Your task to perform on an android device: Set the phone to "Do not disturb". Image 0: 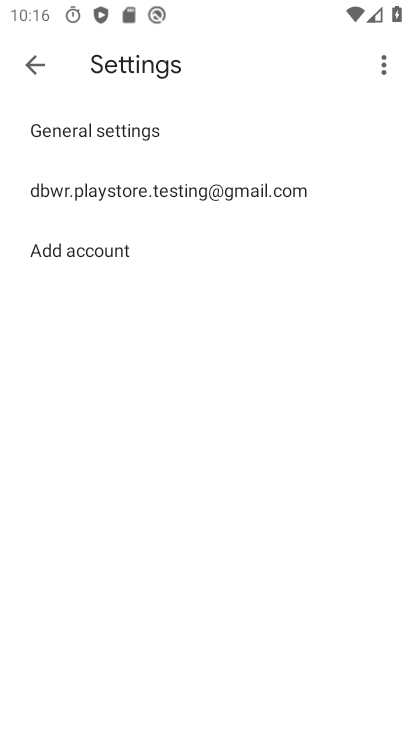
Step 0: press home button
Your task to perform on an android device: Set the phone to "Do not disturb". Image 1: 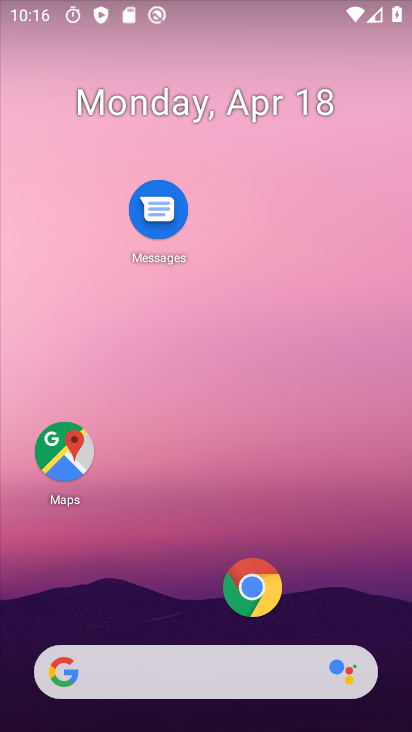
Step 1: drag from (175, 582) to (321, 33)
Your task to perform on an android device: Set the phone to "Do not disturb". Image 2: 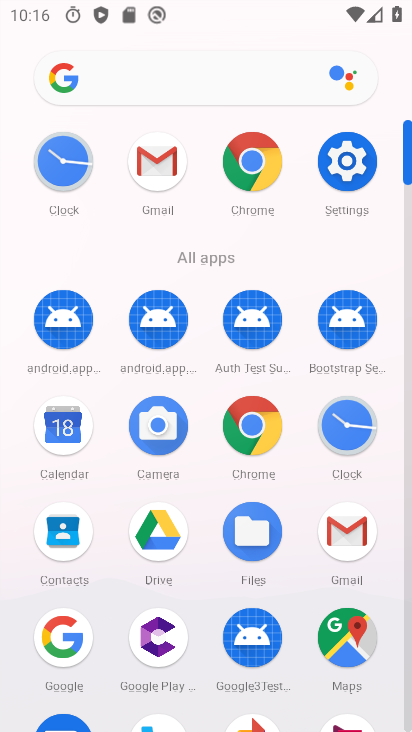
Step 2: click (344, 184)
Your task to perform on an android device: Set the phone to "Do not disturb". Image 3: 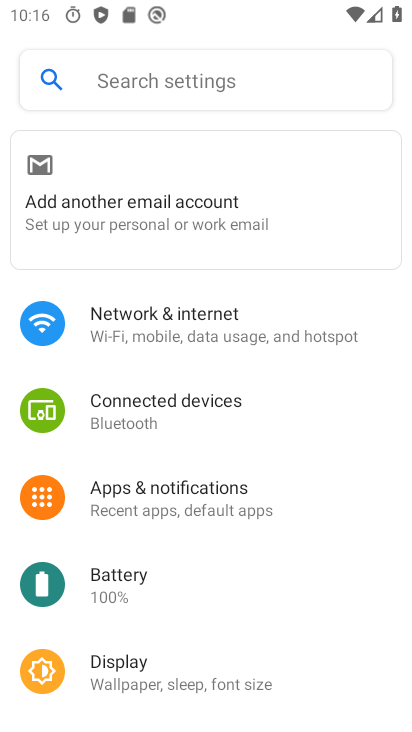
Step 3: drag from (146, 628) to (269, 153)
Your task to perform on an android device: Set the phone to "Do not disturb". Image 4: 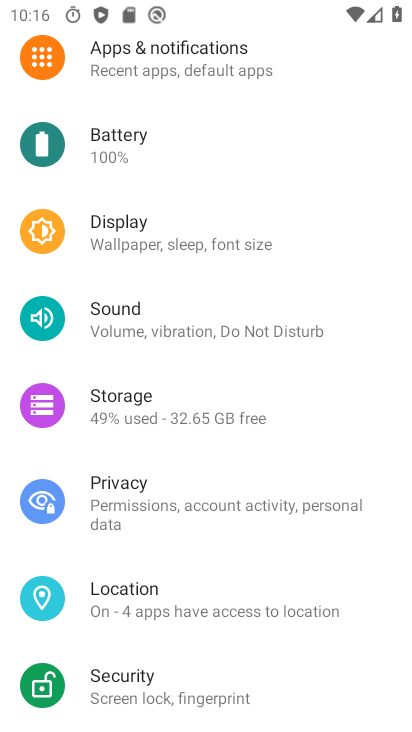
Step 4: click (163, 335)
Your task to perform on an android device: Set the phone to "Do not disturb". Image 5: 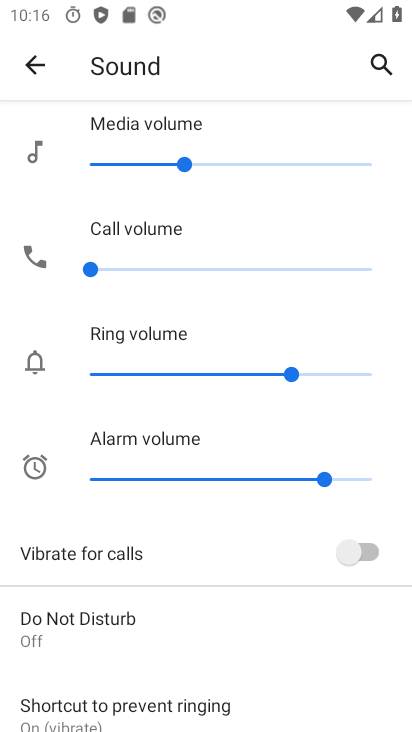
Step 5: click (134, 629)
Your task to perform on an android device: Set the phone to "Do not disturb". Image 6: 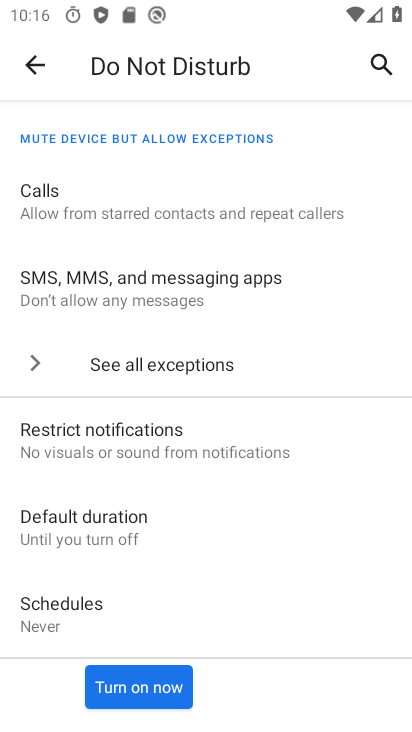
Step 6: click (121, 693)
Your task to perform on an android device: Set the phone to "Do not disturb". Image 7: 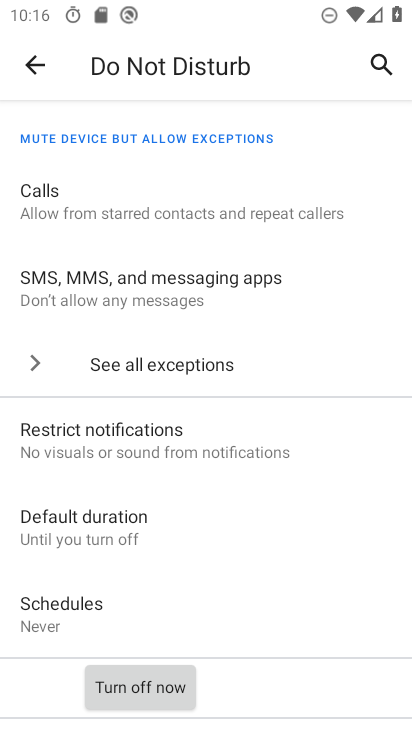
Step 7: task complete